Your task to perform on an android device: Open the phone app and click the voicemail tab. Image 0: 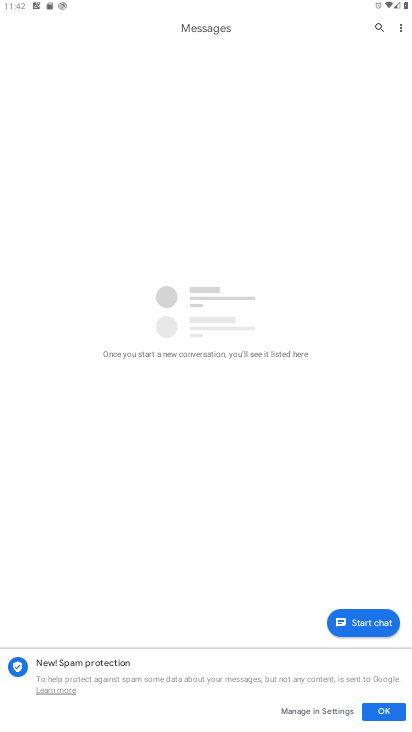
Step 0: press home button
Your task to perform on an android device: Open the phone app and click the voicemail tab. Image 1: 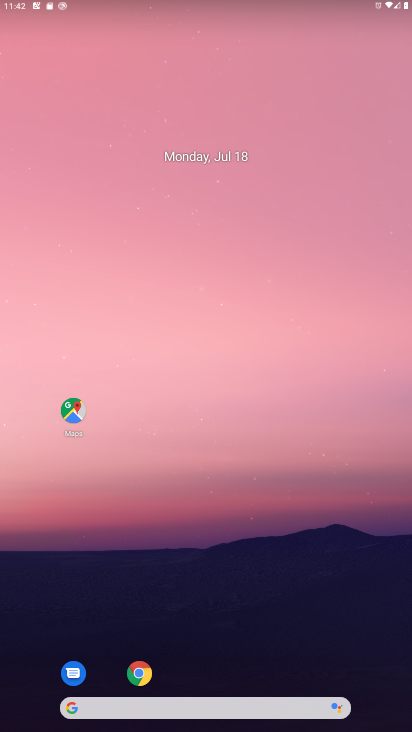
Step 1: drag from (182, 665) to (199, 225)
Your task to perform on an android device: Open the phone app and click the voicemail tab. Image 2: 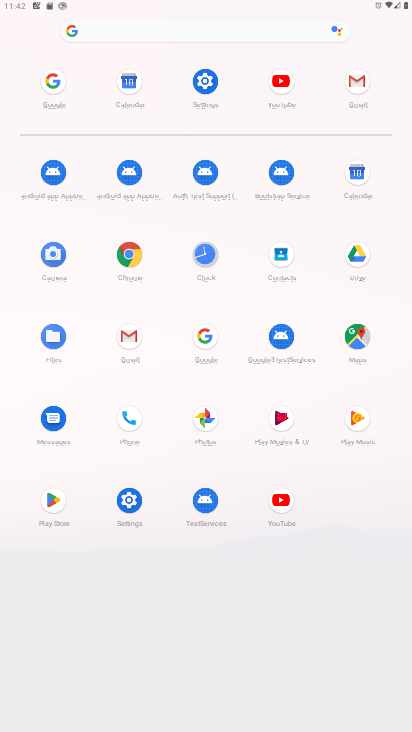
Step 2: click (111, 422)
Your task to perform on an android device: Open the phone app and click the voicemail tab. Image 3: 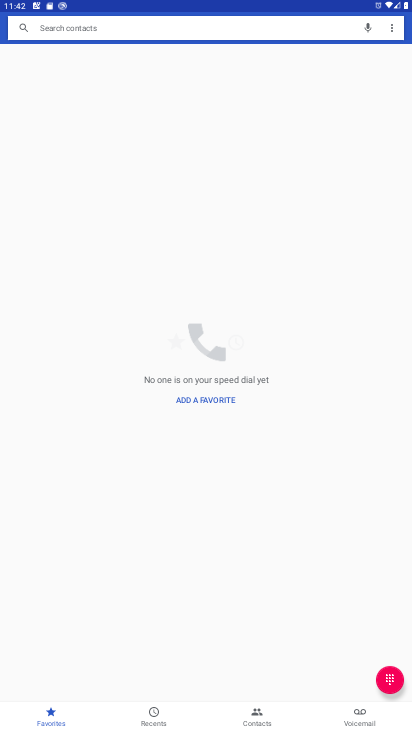
Step 3: click (358, 700)
Your task to perform on an android device: Open the phone app and click the voicemail tab. Image 4: 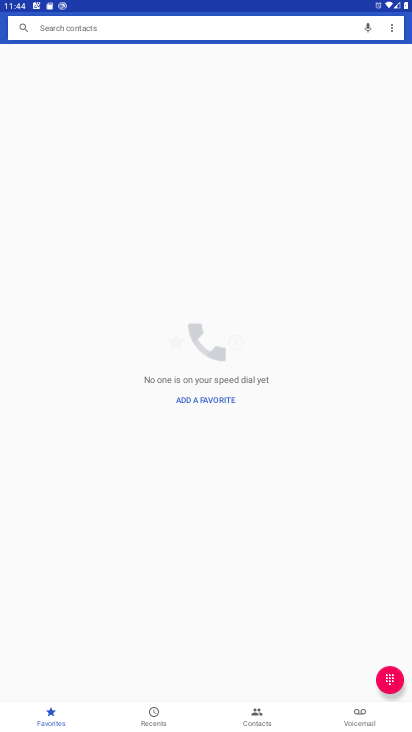
Step 4: click (363, 708)
Your task to perform on an android device: Open the phone app and click the voicemail tab. Image 5: 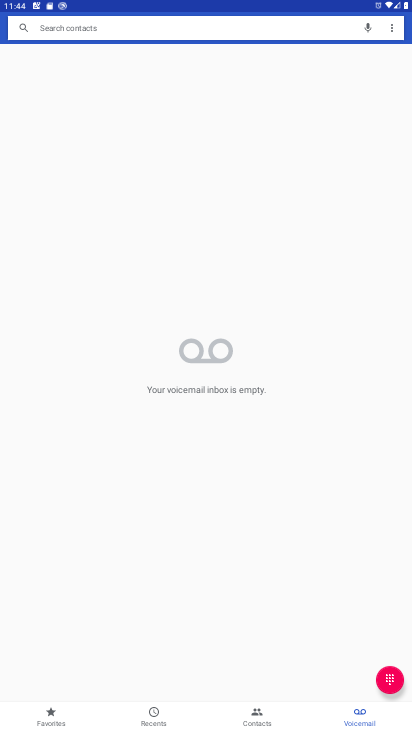
Step 5: task complete